Your task to perform on an android device: Open the stopwatch Image 0: 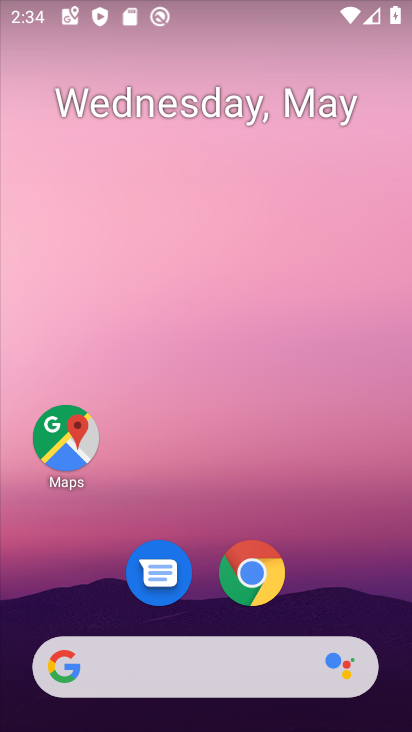
Step 0: drag from (340, 561) to (286, 1)
Your task to perform on an android device: Open the stopwatch Image 1: 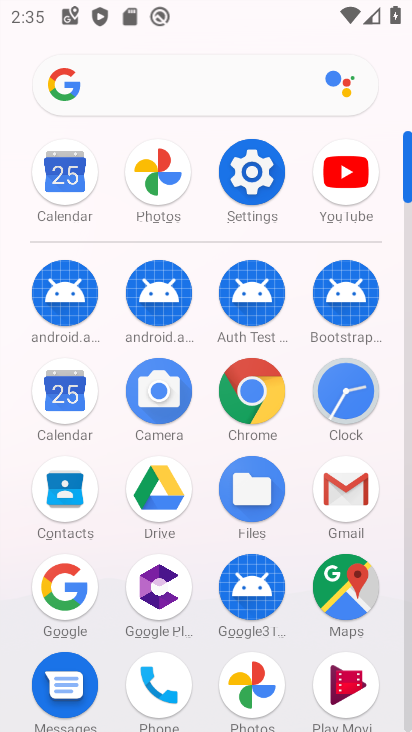
Step 1: click (349, 400)
Your task to perform on an android device: Open the stopwatch Image 2: 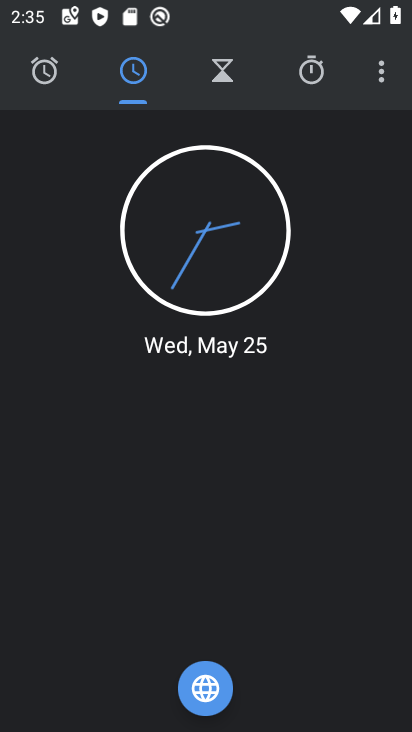
Step 2: click (315, 60)
Your task to perform on an android device: Open the stopwatch Image 3: 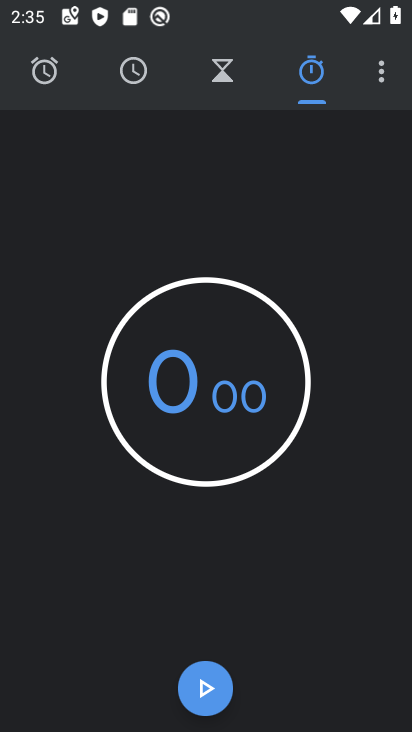
Step 3: task complete